Your task to perform on an android device: make emails show in primary in the gmail app Image 0: 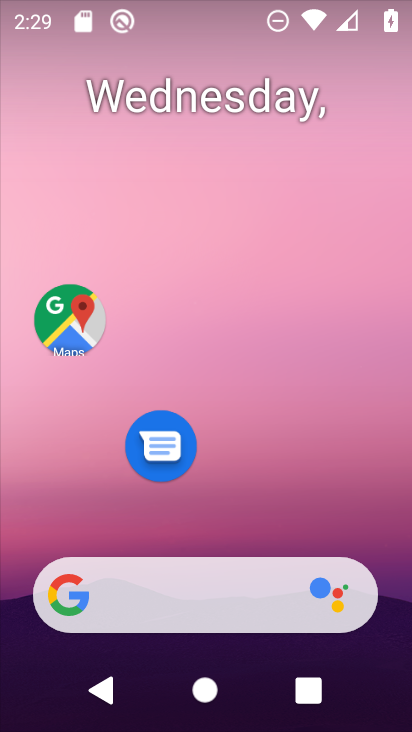
Step 0: drag from (288, 544) to (345, 5)
Your task to perform on an android device: make emails show in primary in the gmail app Image 1: 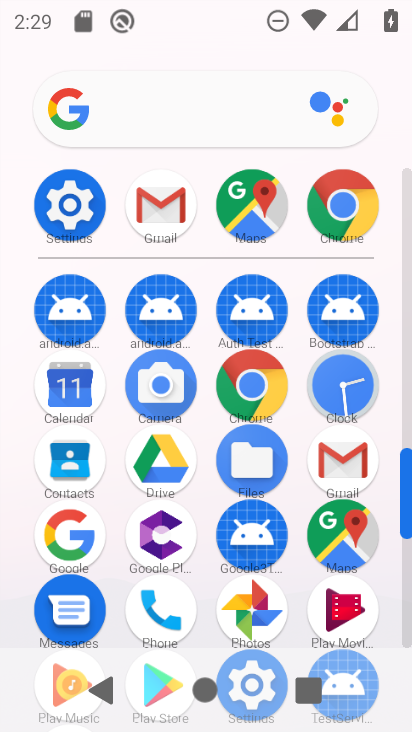
Step 1: click (177, 193)
Your task to perform on an android device: make emails show in primary in the gmail app Image 2: 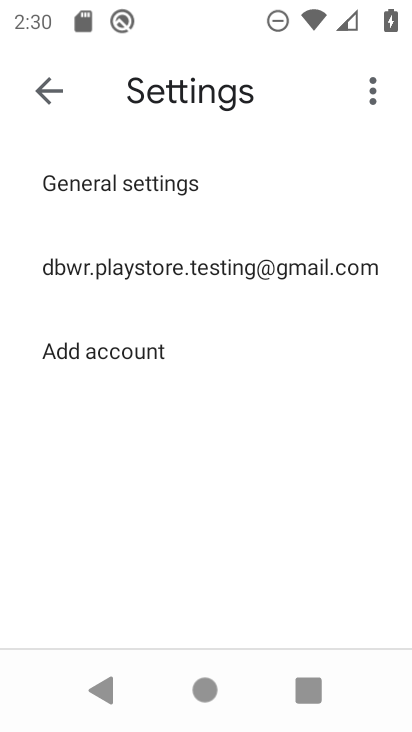
Step 2: click (106, 272)
Your task to perform on an android device: make emails show in primary in the gmail app Image 3: 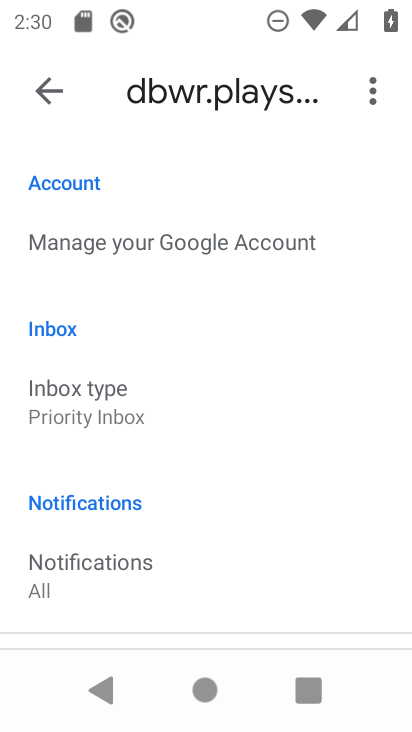
Step 3: drag from (159, 443) to (128, 246)
Your task to perform on an android device: make emails show in primary in the gmail app Image 4: 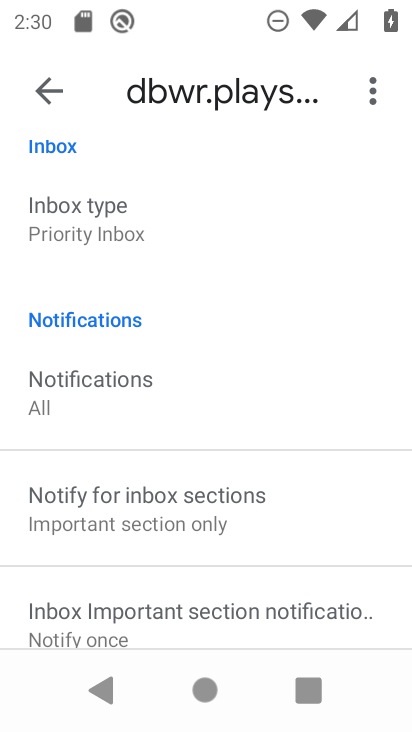
Step 4: click (189, 480)
Your task to perform on an android device: make emails show in primary in the gmail app Image 5: 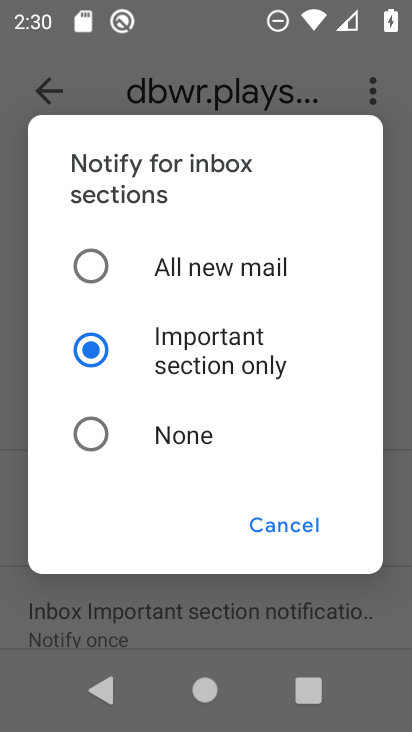
Step 5: click (187, 357)
Your task to perform on an android device: make emails show in primary in the gmail app Image 6: 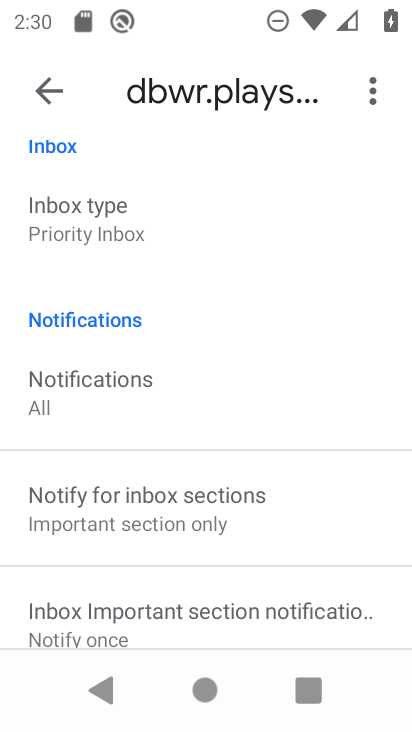
Step 6: task complete